Your task to perform on an android device: Open Google Image 0: 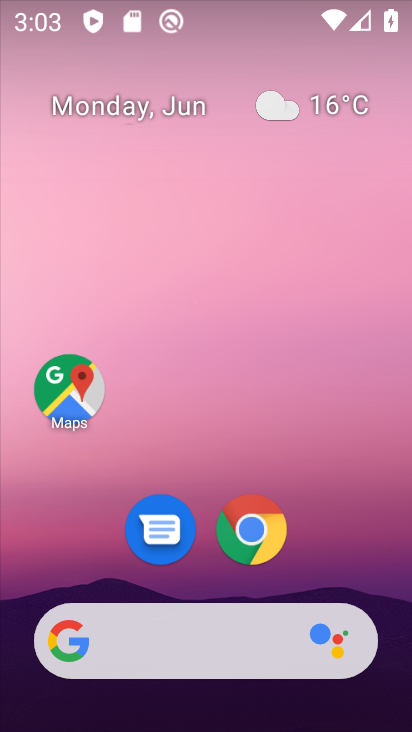
Step 0: drag from (238, 672) to (402, 364)
Your task to perform on an android device: Open Google Image 1: 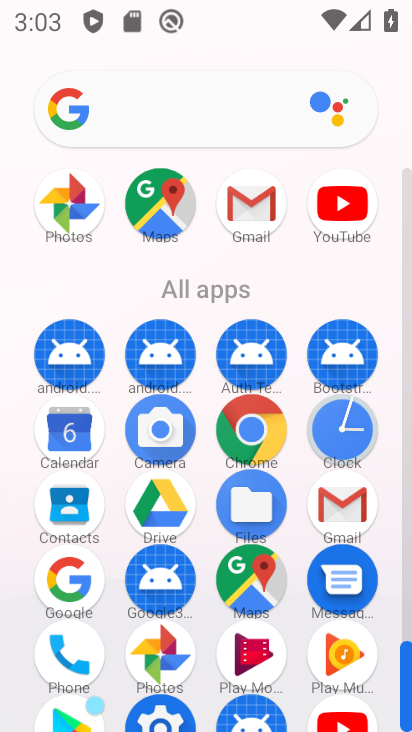
Step 1: click (213, 223)
Your task to perform on an android device: Open Google Image 2: 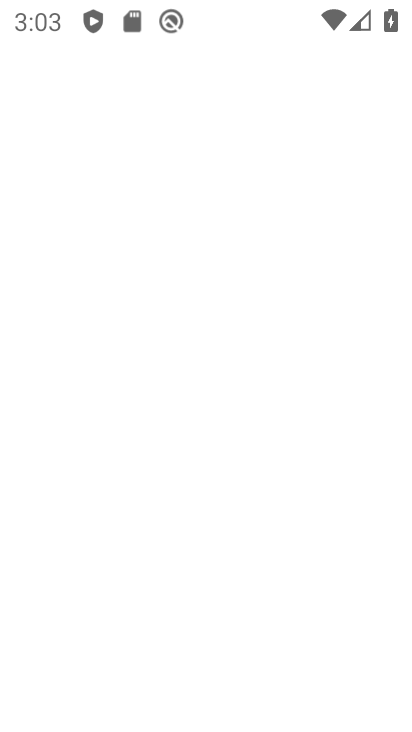
Step 2: click (78, 573)
Your task to perform on an android device: Open Google Image 3: 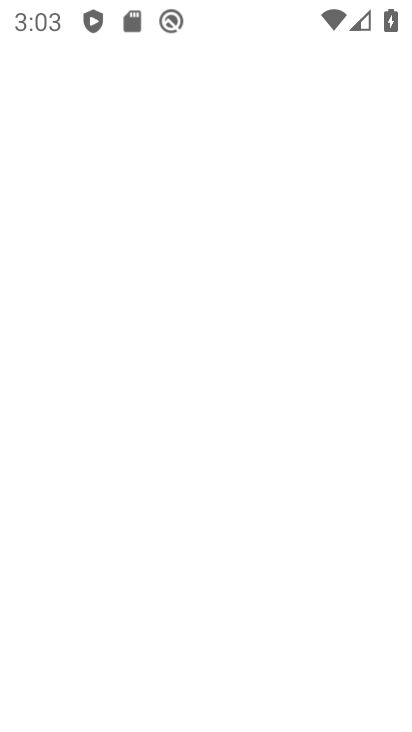
Step 3: click (70, 583)
Your task to perform on an android device: Open Google Image 4: 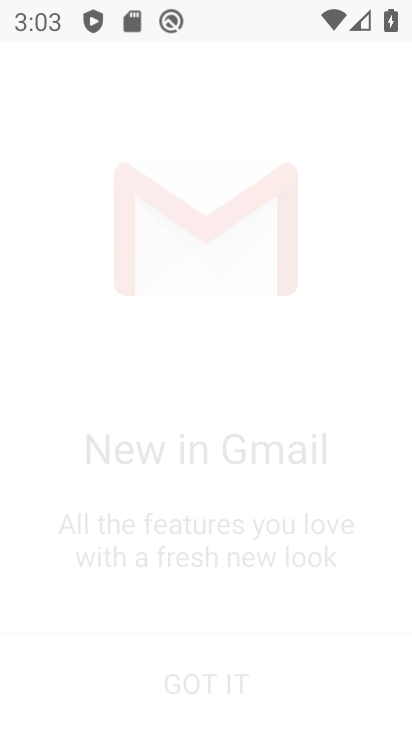
Step 4: click (83, 563)
Your task to perform on an android device: Open Google Image 5: 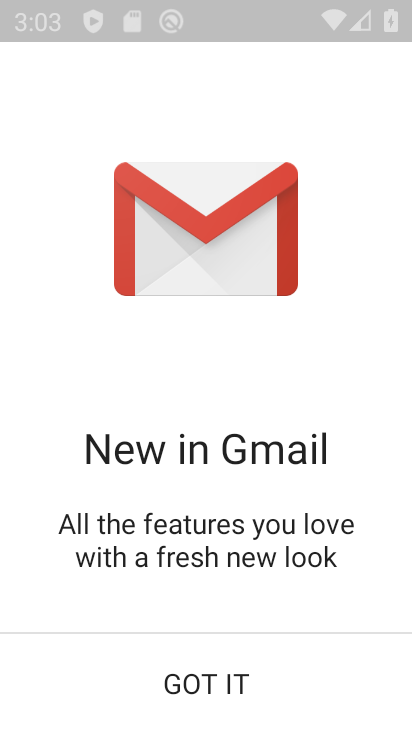
Step 5: click (82, 559)
Your task to perform on an android device: Open Google Image 6: 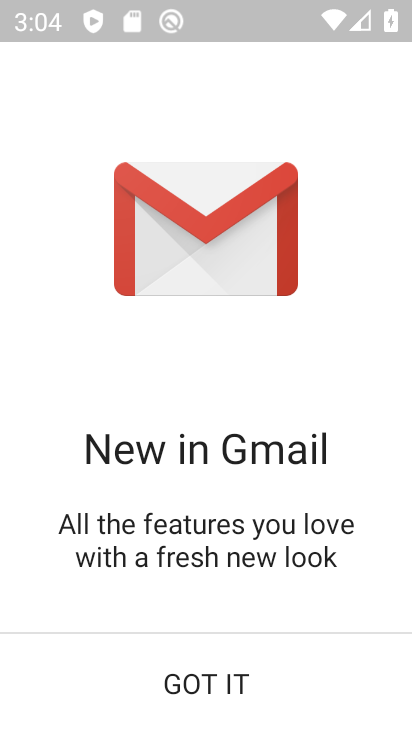
Step 6: press back button
Your task to perform on an android device: Open Google Image 7: 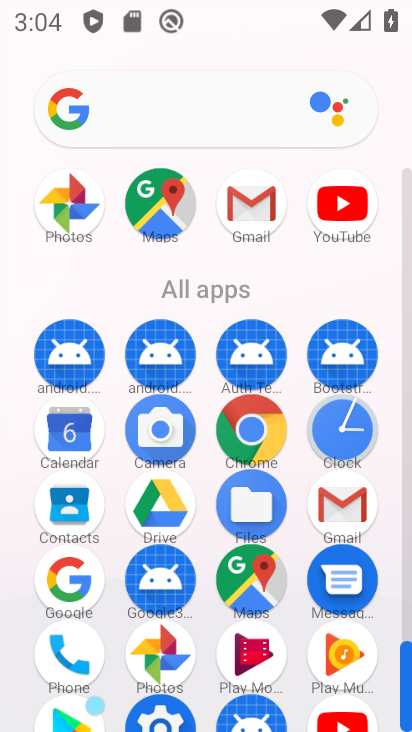
Step 7: click (80, 577)
Your task to perform on an android device: Open Google Image 8: 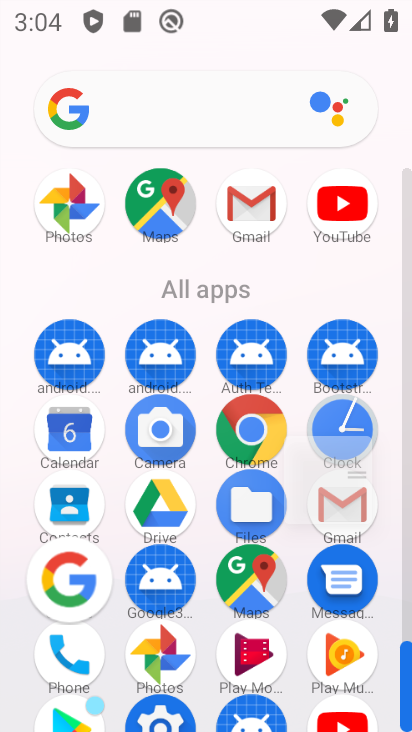
Step 8: click (80, 577)
Your task to perform on an android device: Open Google Image 9: 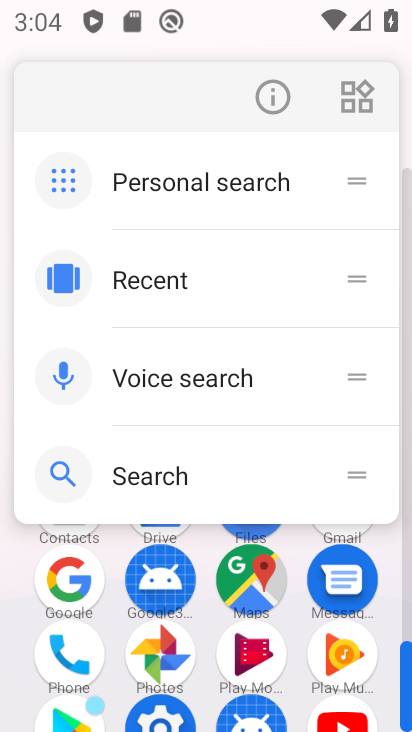
Step 9: click (80, 570)
Your task to perform on an android device: Open Google Image 10: 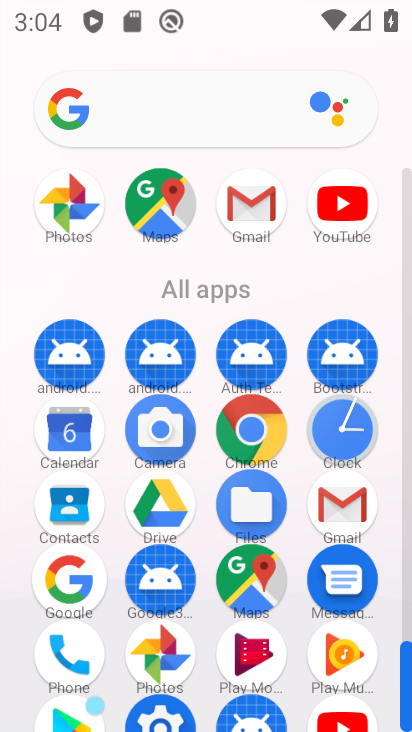
Step 10: click (76, 564)
Your task to perform on an android device: Open Google Image 11: 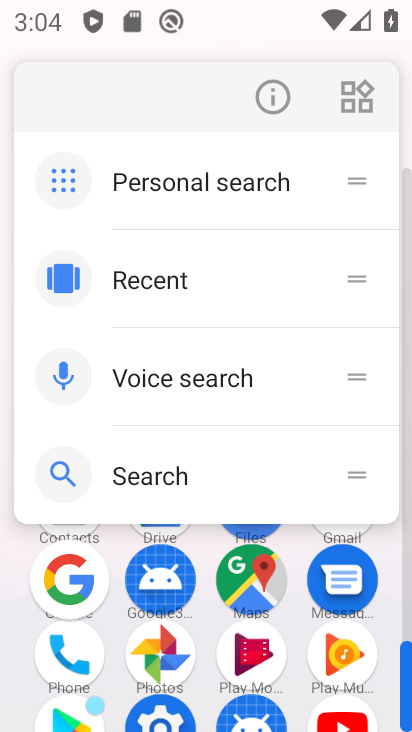
Step 11: click (73, 565)
Your task to perform on an android device: Open Google Image 12: 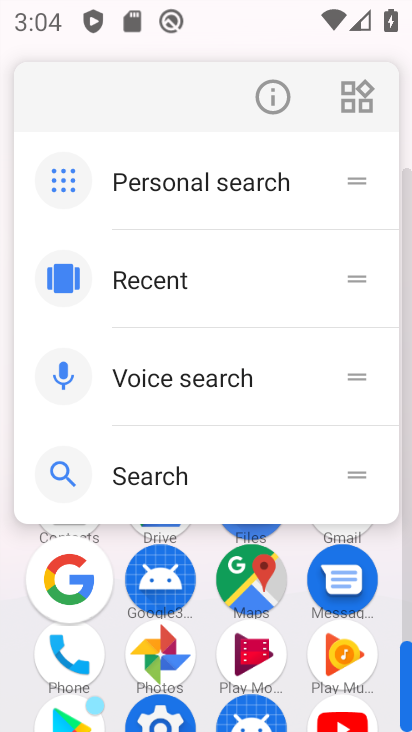
Step 12: click (76, 565)
Your task to perform on an android device: Open Google Image 13: 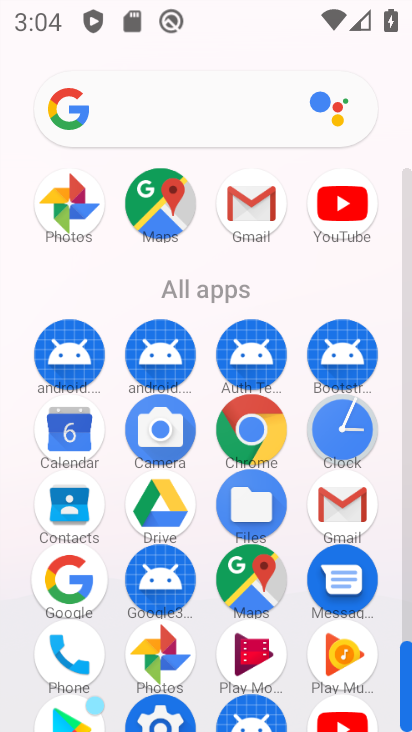
Step 13: click (56, 585)
Your task to perform on an android device: Open Google Image 14: 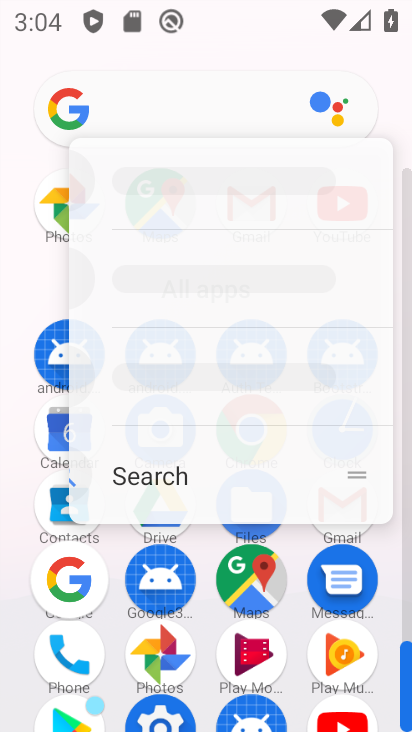
Step 14: click (56, 585)
Your task to perform on an android device: Open Google Image 15: 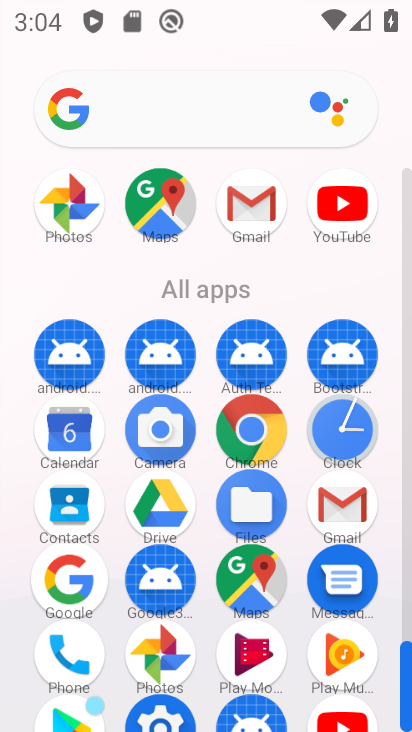
Step 15: click (72, 557)
Your task to perform on an android device: Open Google Image 16: 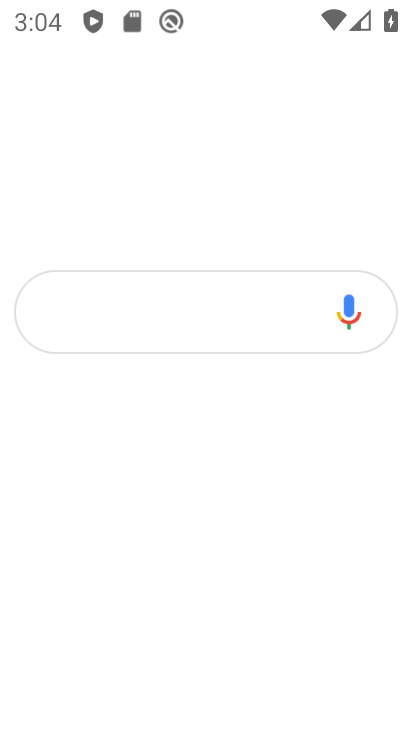
Step 16: click (72, 557)
Your task to perform on an android device: Open Google Image 17: 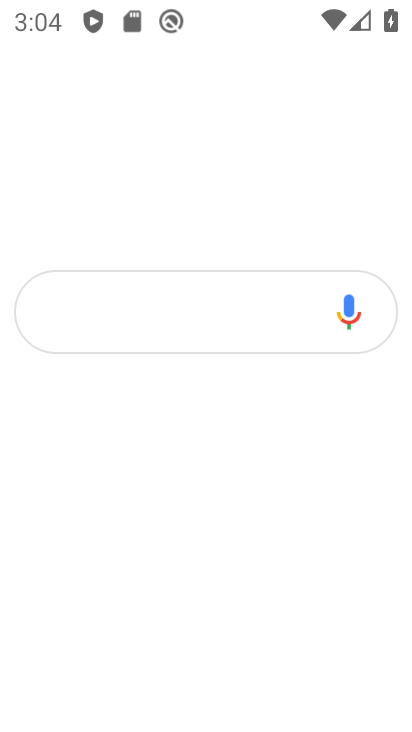
Step 17: click (72, 557)
Your task to perform on an android device: Open Google Image 18: 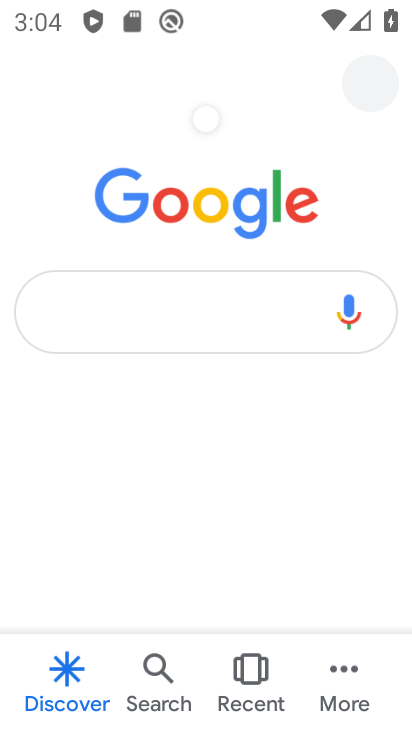
Step 18: task complete